Your task to perform on an android device: Open network settings Image 0: 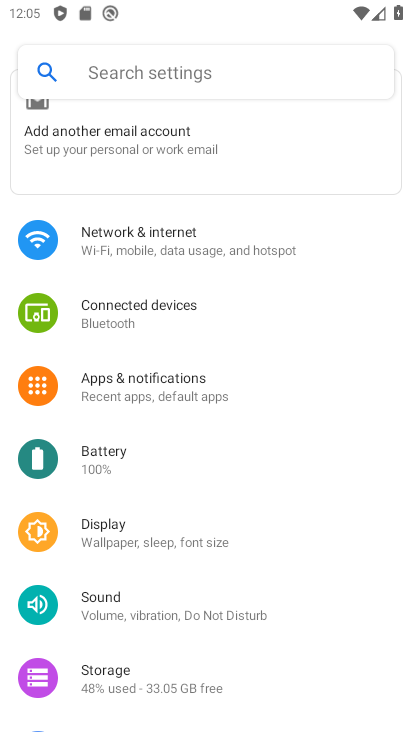
Step 0: click (177, 249)
Your task to perform on an android device: Open network settings Image 1: 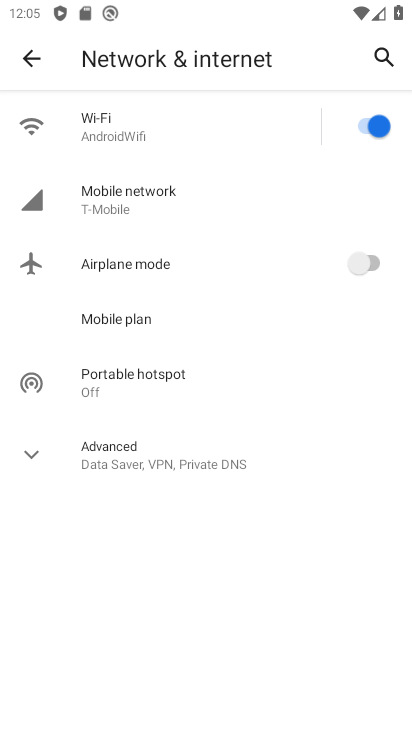
Step 1: click (171, 200)
Your task to perform on an android device: Open network settings Image 2: 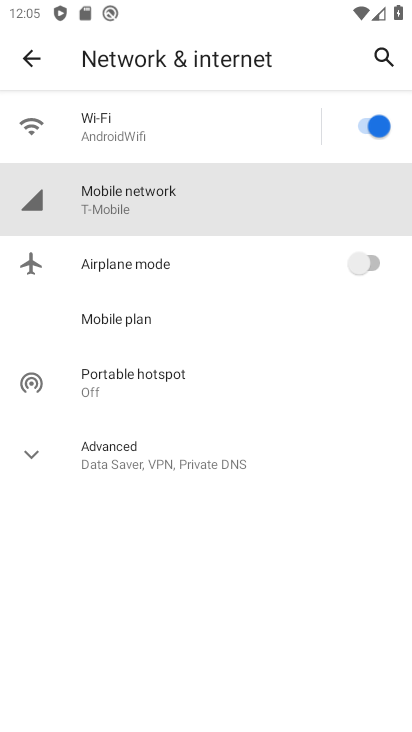
Step 2: task complete